Your task to perform on an android device: open chrome and create a bookmark for the current page Image 0: 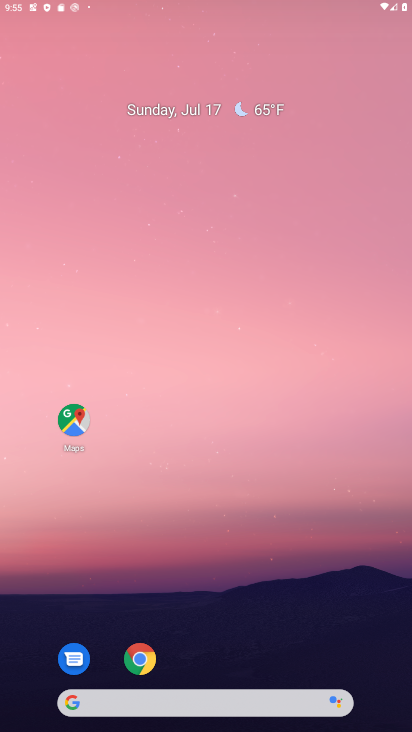
Step 0: drag from (211, 5) to (337, 590)
Your task to perform on an android device: open chrome and create a bookmark for the current page Image 1: 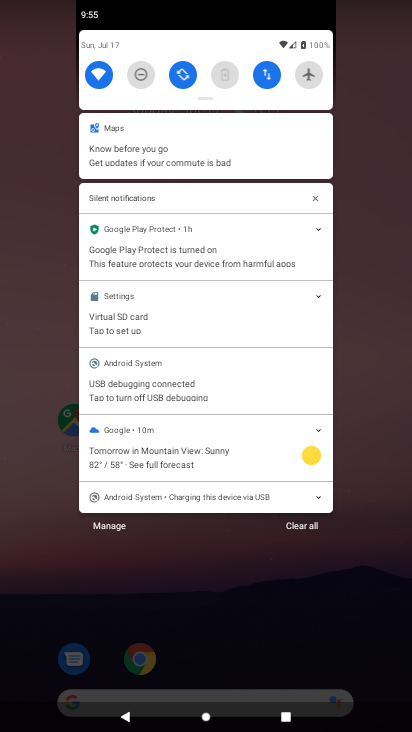
Step 1: press home button
Your task to perform on an android device: open chrome and create a bookmark for the current page Image 2: 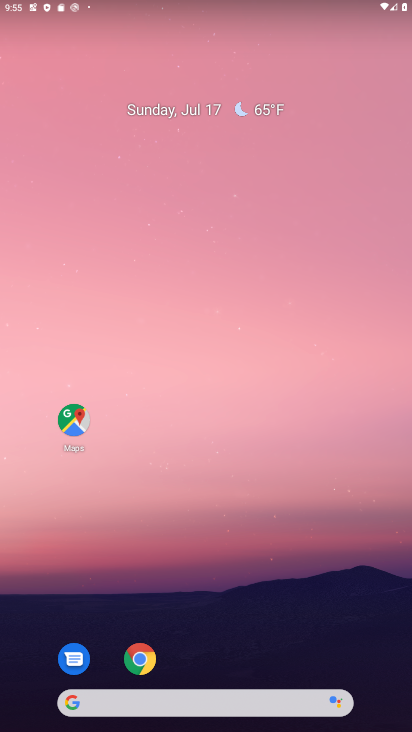
Step 2: click (143, 652)
Your task to perform on an android device: open chrome and create a bookmark for the current page Image 3: 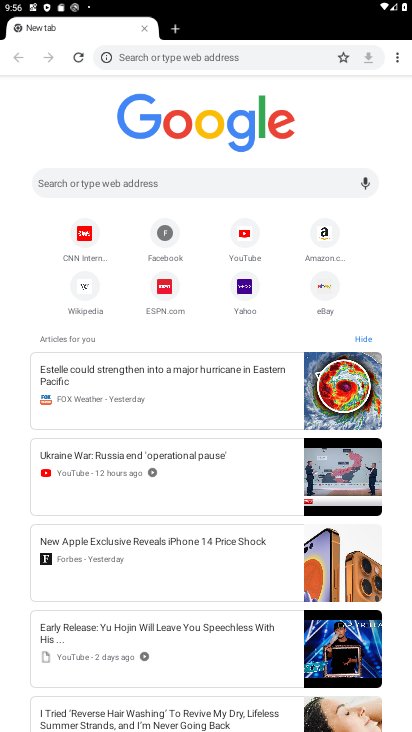
Step 3: click (399, 66)
Your task to perform on an android device: open chrome and create a bookmark for the current page Image 4: 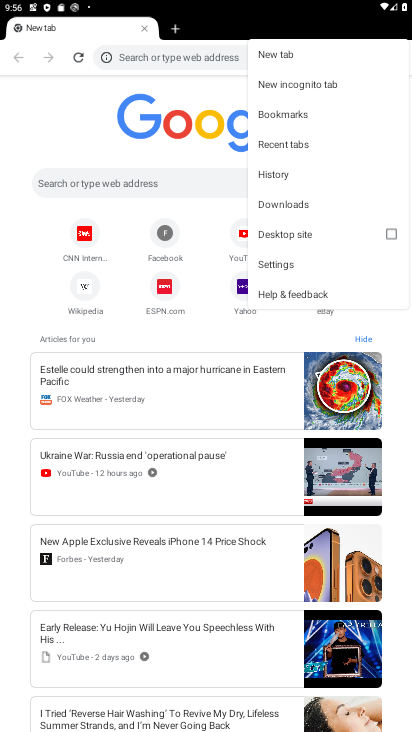
Step 4: click (87, 77)
Your task to perform on an android device: open chrome and create a bookmark for the current page Image 5: 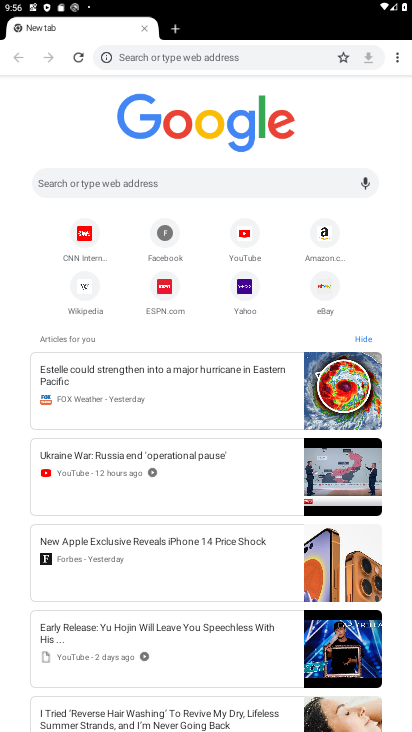
Step 5: click (343, 64)
Your task to perform on an android device: open chrome and create a bookmark for the current page Image 6: 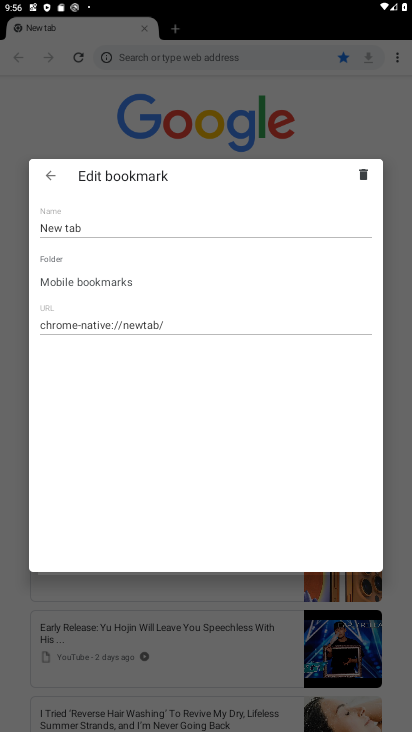
Step 6: click (362, 178)
Your task to perform on an android device: open chrome and create a bookmark for the current page Image 7: 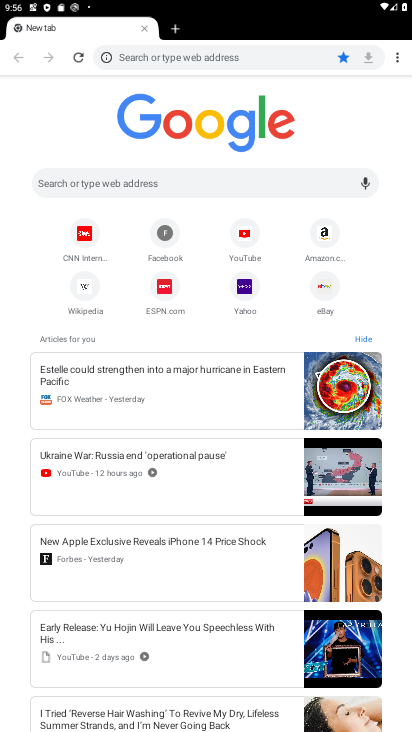
Step 7: task complete